Your task to perform on an android device: Go to Google Image 0: 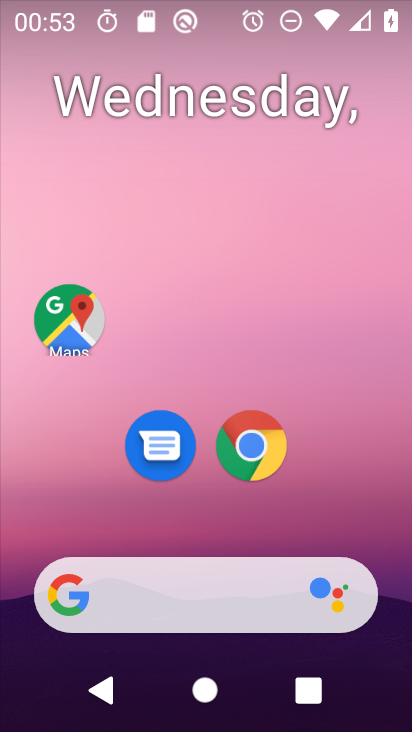
Step 0: drag from (338, 479) to (366, 32)
Your task to perform on an android device: Go to Google Image 1: 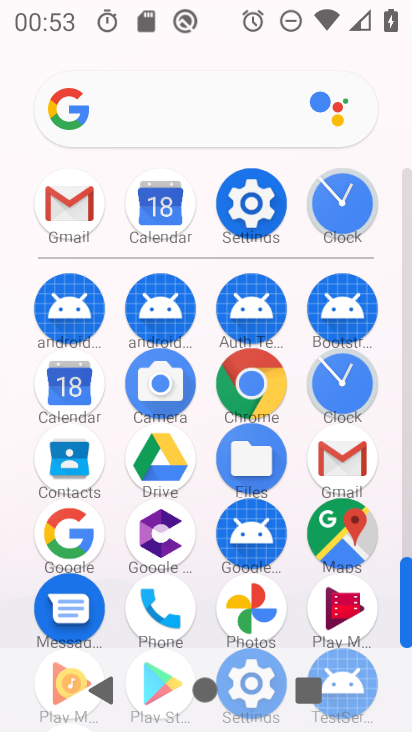
Step 1: click (62, 543)
Your task to perform on an android device: Go to Google Image 2: 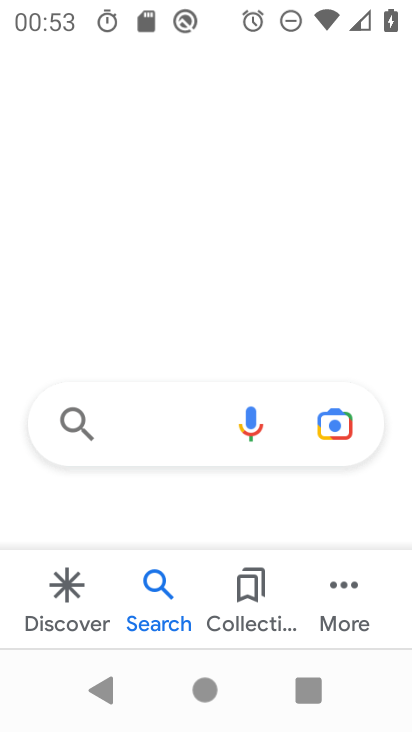
Step 2: task complete